Your task to perform on an android device: toggle translation in the chrome app Image 0: 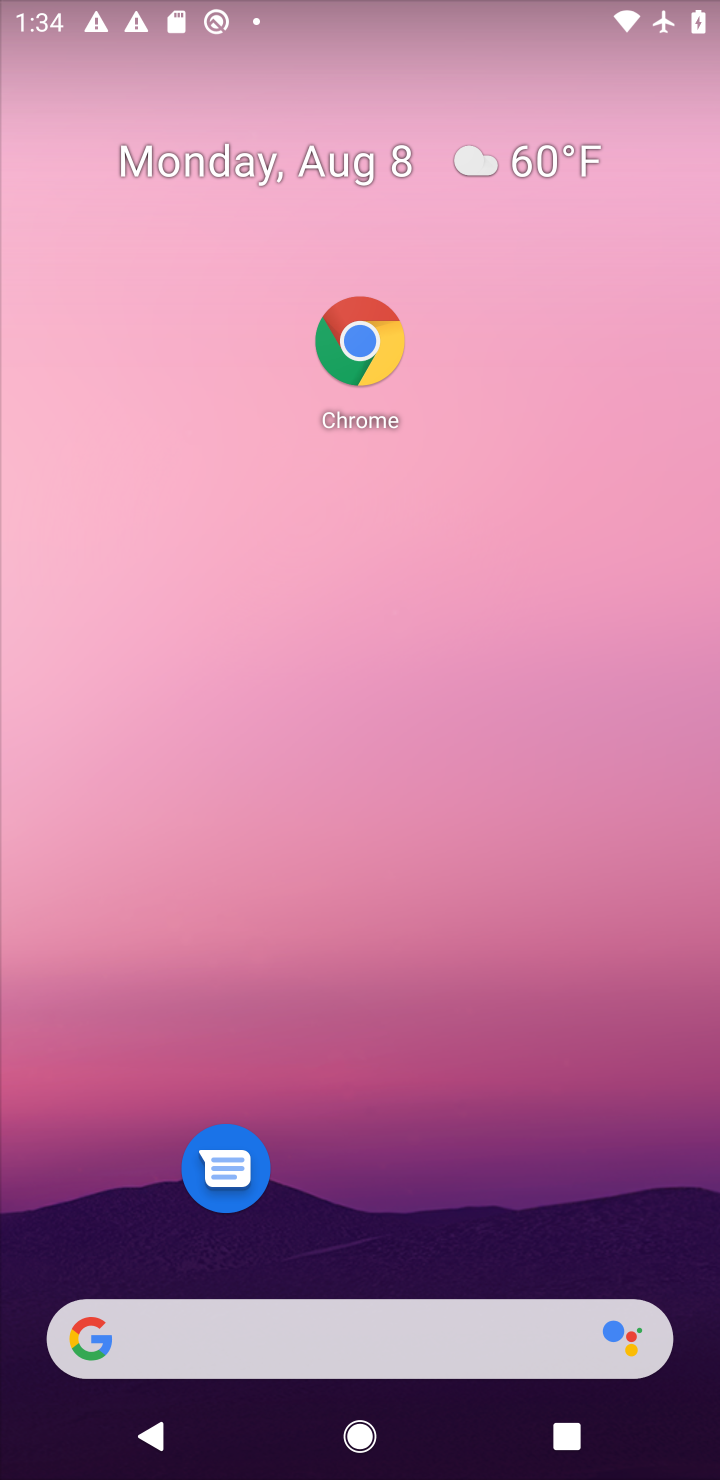
Step 0: click (368, 355)
Your task to perform on an android device: toggle translation in the chrome app Image 1: 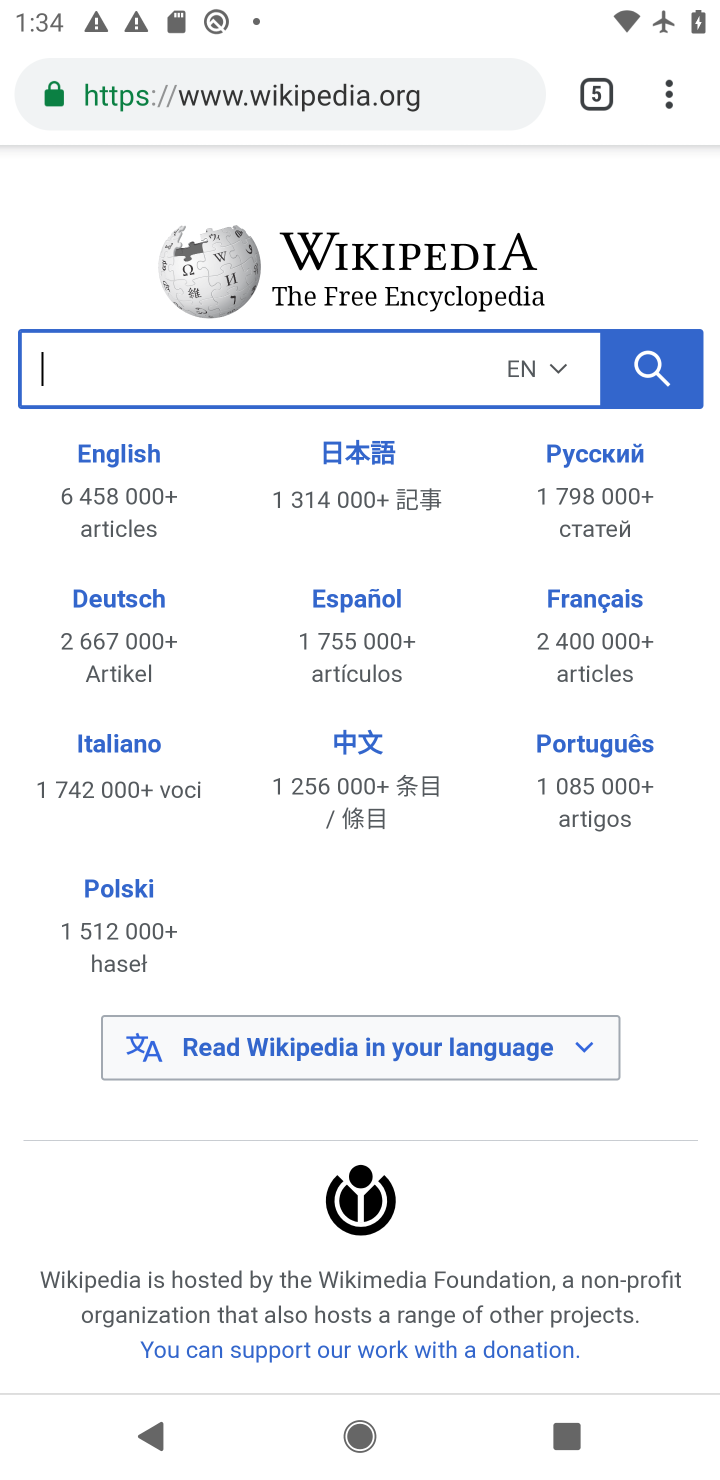
Step 1: click (654, 122)
Your task to perform on an android device: toggle translation in the chrome app Image 2: 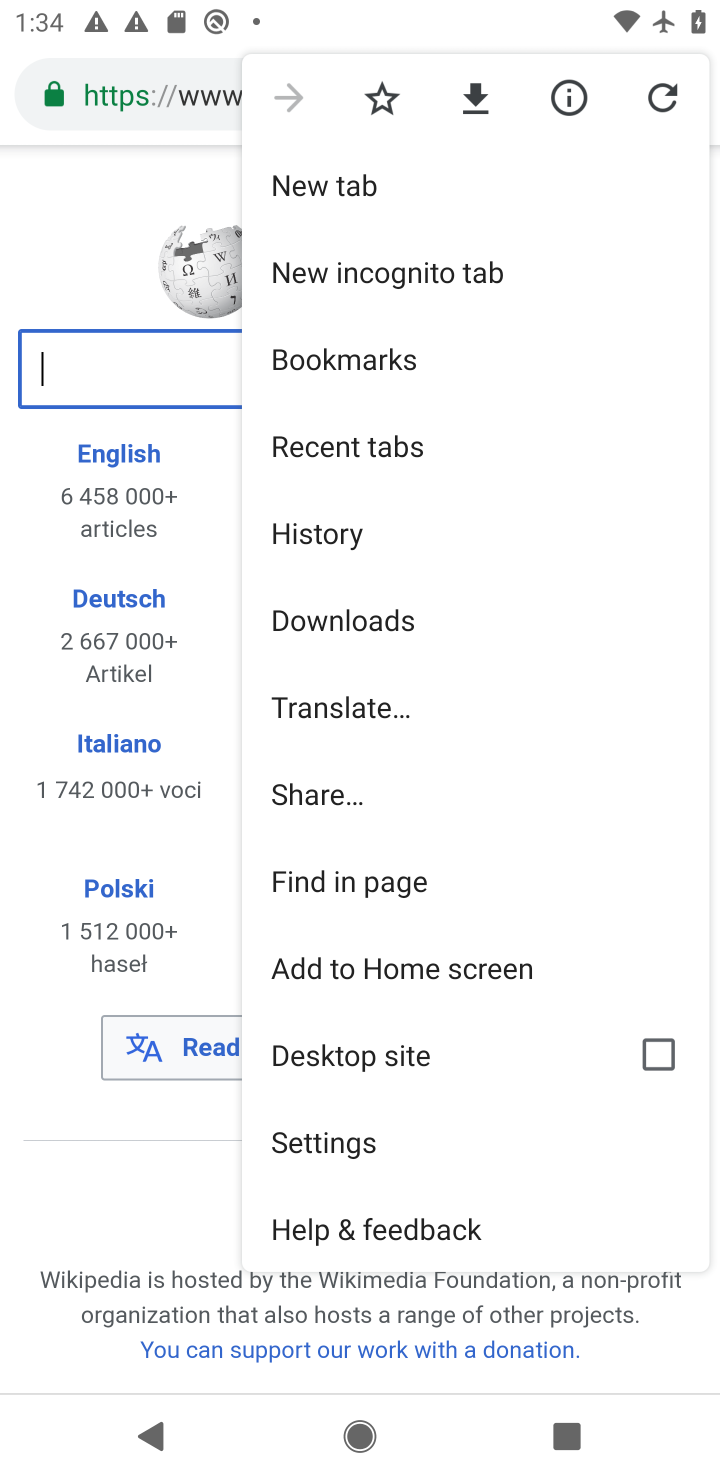
Step 2: click (465, 1129)
Your task to perform on an android device: toggle translation in the chrome app Image 3: 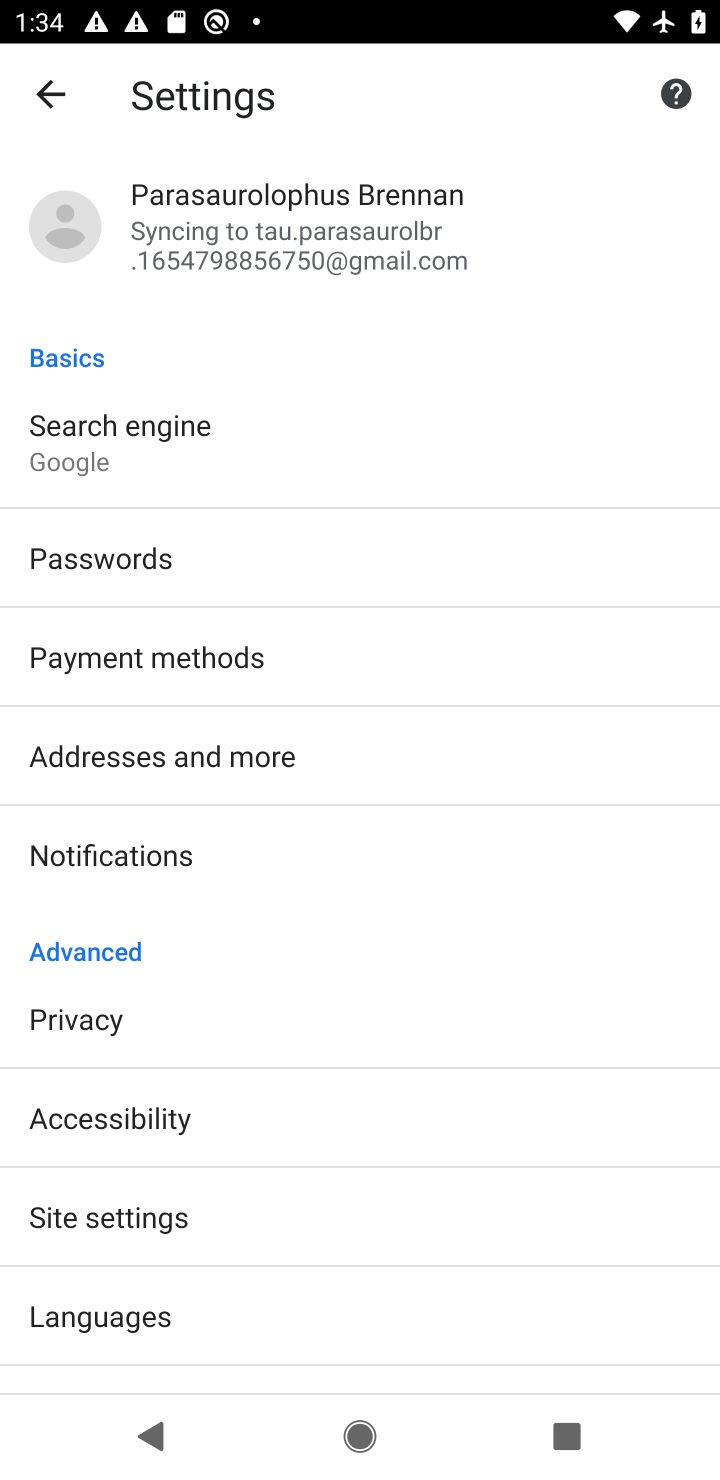
Step 3: task complete